Your task to perform on an android device: Go to accessibility settings Image 0: 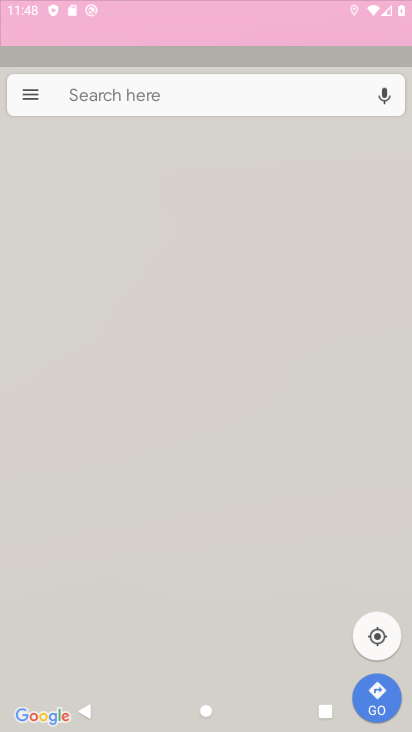
Step 0: click (126, 596)
Your task to perform on an android device: Go to accessibility settings Image 1: 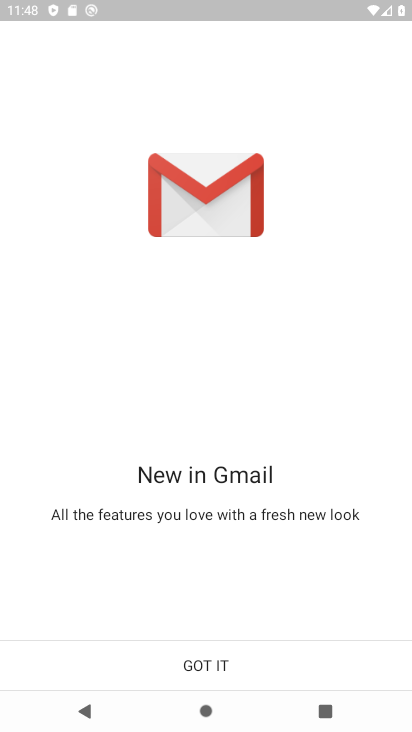
Step 1: press back button
Your task to perform on an android device: Go to accessibility settings Image 2: 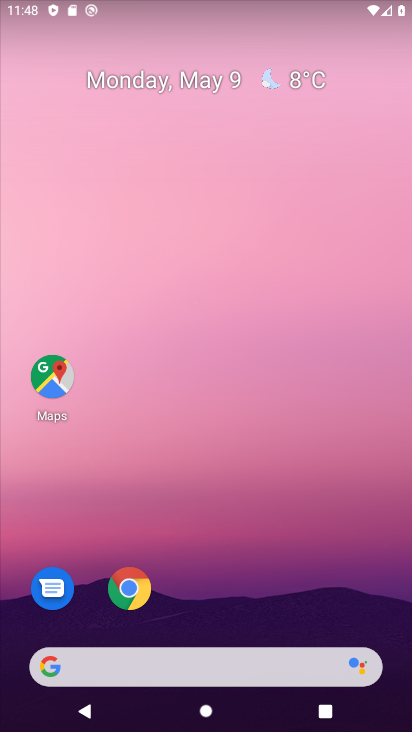
Step 2: drag from (194, 657) to (379, 84)
Your task to perform on an android device: Go to accessibility settings Image 3: 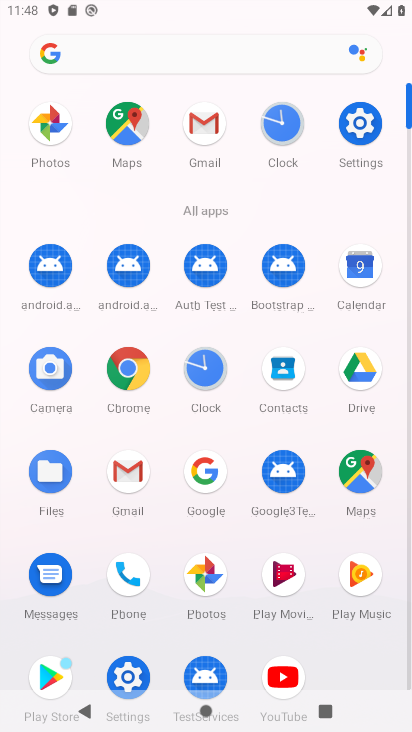
Step 3: click (121, 686)
Your task to perform on an android device: Go to accessibility settings Image 4: 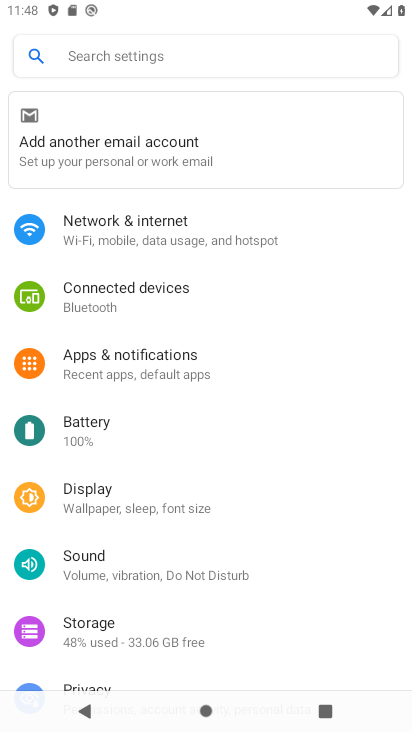
Step 4: drag from (146, 651) to (316, 158)
Your task to perform on an android device: Go to accessibility settings Image 5: 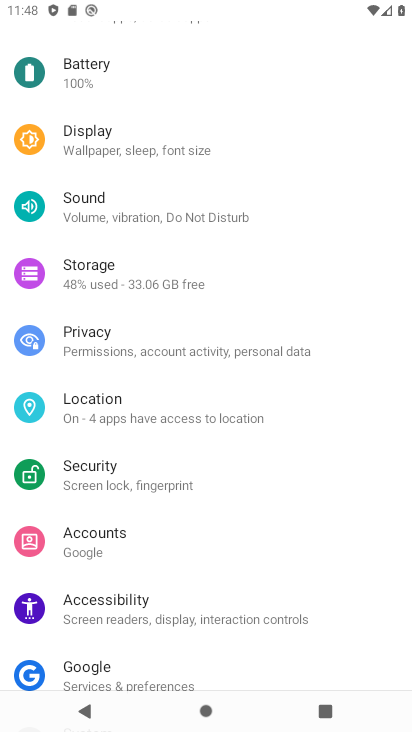
Step 5: drag from (146, 625) to (225, 409)
Your task to perform on an android device: Go to accessibility settings Image 6: 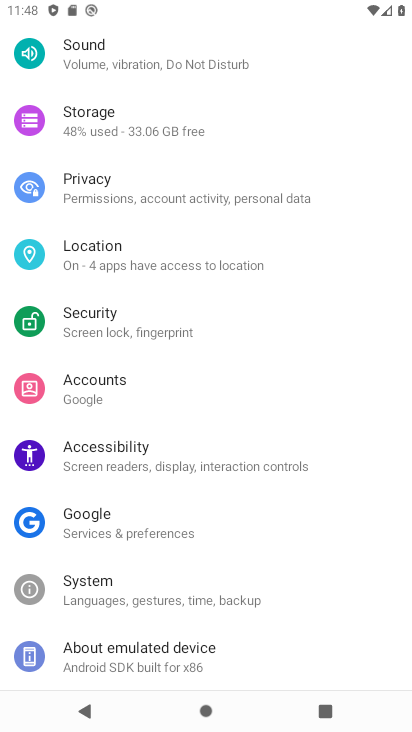
Step 6: click (189, 458)
Your task to perform on an android device: Go to accessibility settings Image 7: 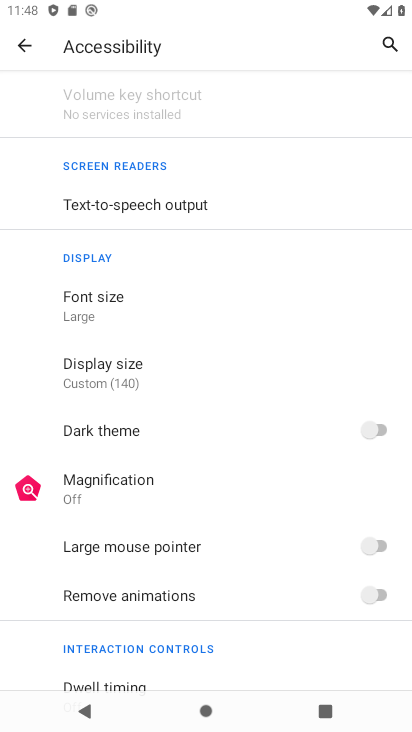
Step 7: task complete